Your task to perform on an android device: change the clock style Image 0: 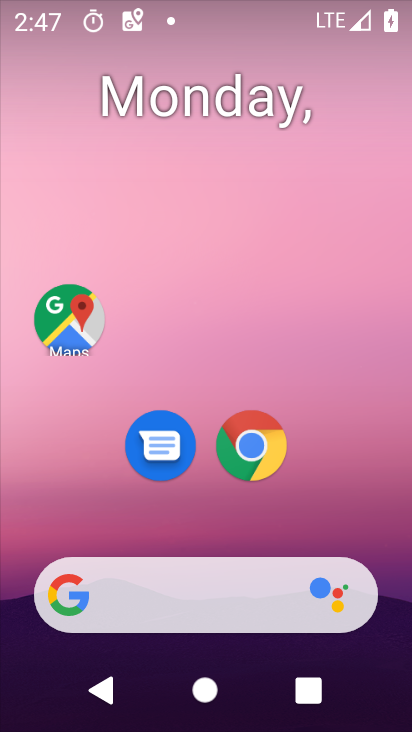
Step 0: drag from (191, 320) to (174, 116)
Your task to perform on an android device: change the clock style Image 1: 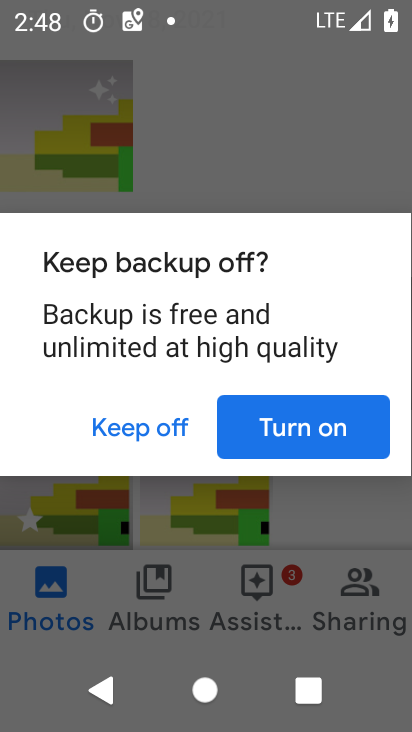
Step 1: click (291, 432)
Your task to perform on an android device: change the clock style Image 2: 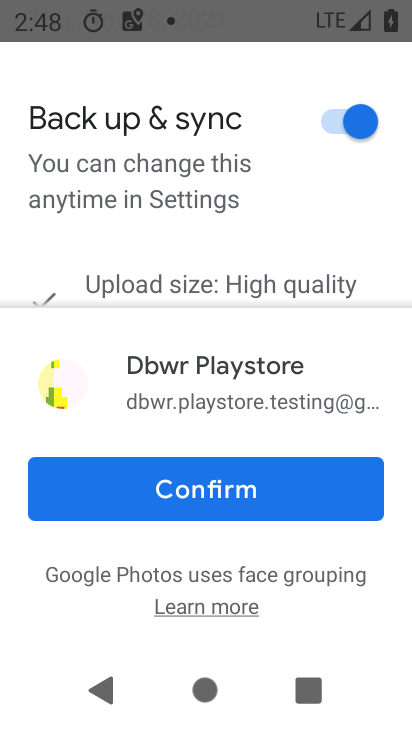
Step 2: click (262, 487)
Your task to perform on an android device: change the clock style Image 3: 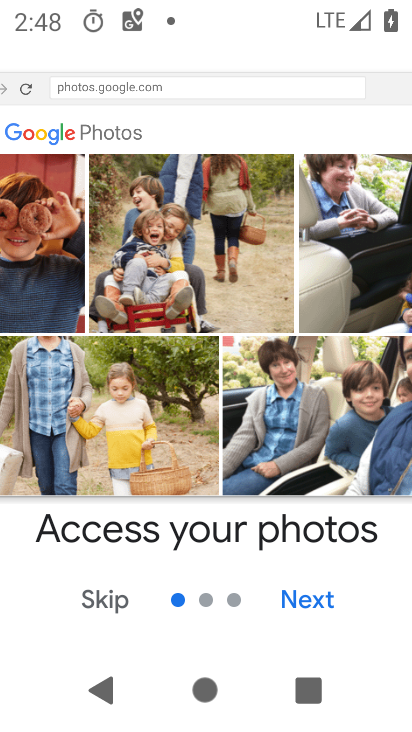
Step 3: press home button
Your task to perform on an android device: change the clock style Image 4: 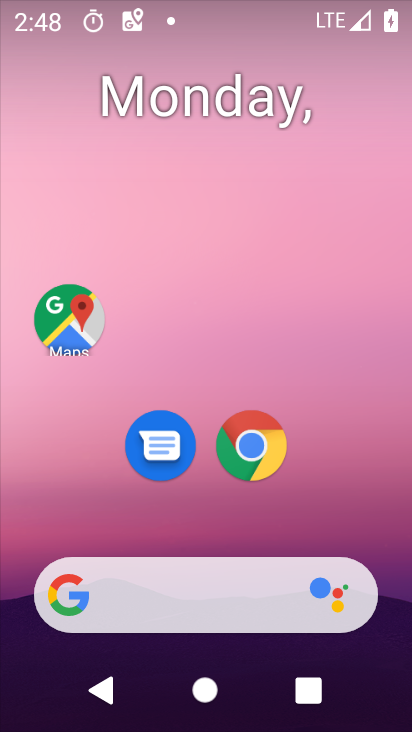
Step 4: drag from (177, 580) to (80, 59)
Your task to perform on an android device: change the clock style Image 5: 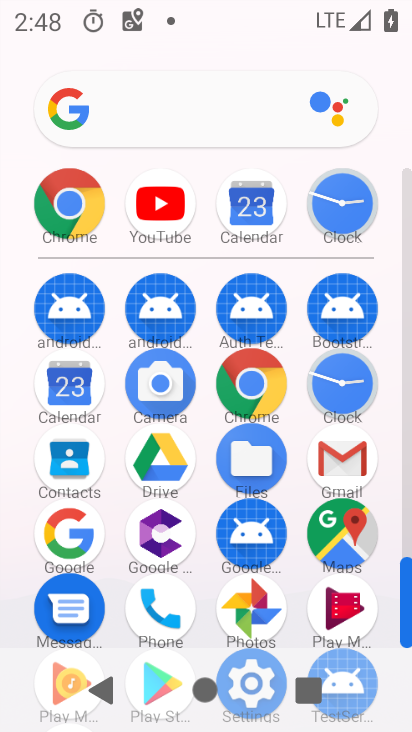
Step 5: click (327, 200)
Your task to perform on an android device: change the clock style Image 6: 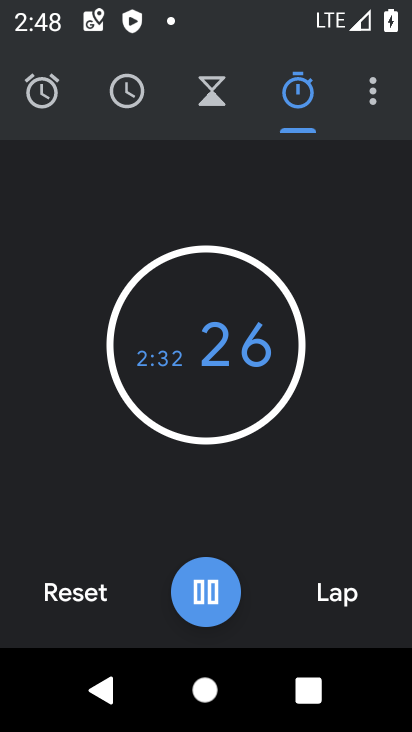
Step 6: click (369, 82)
Your task to perform on an android device: change the clock style Image 7: 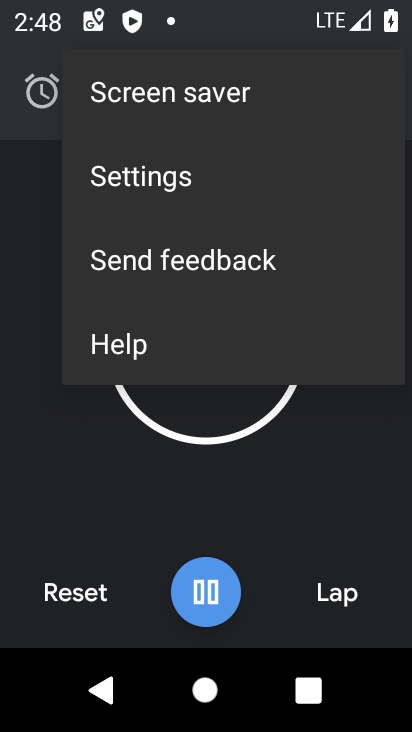
Step 7: click (178, 177)
Your task to perform on an android device: change the clock style Image 8: 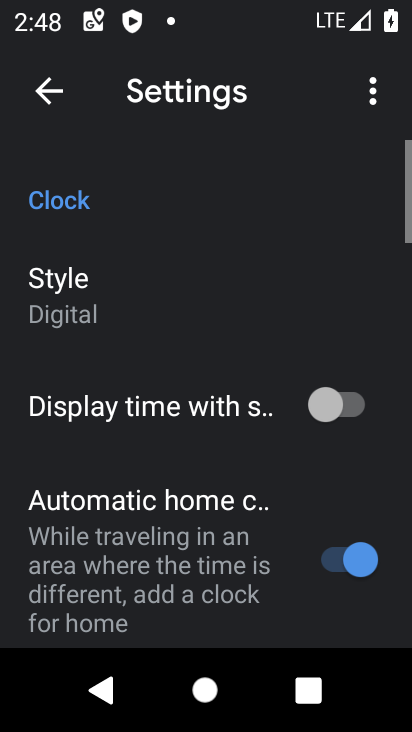
Step 8: click (151, 301)
Your task to perform on an android device: change the clock style Image 9: 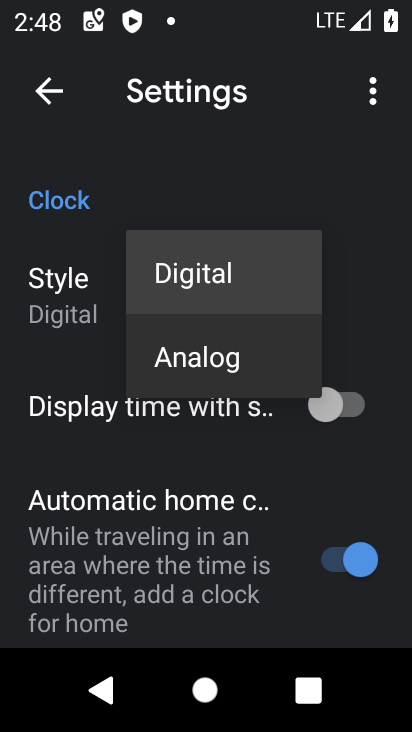
Step 9: click (192, 369)
Your task to perform on an android device: change the clock style Image 10: 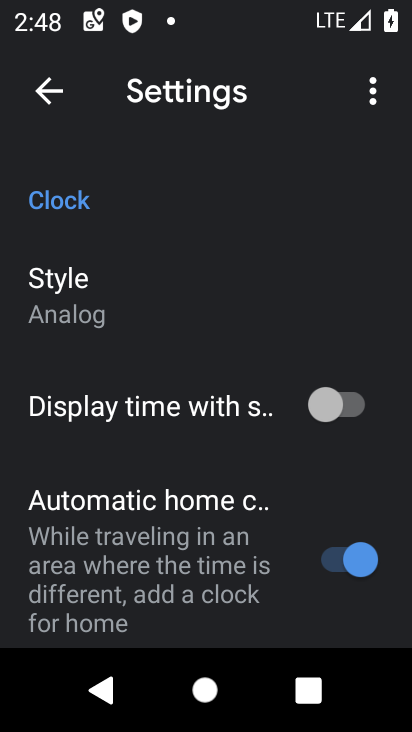
Step 10: task complete